Your task to perform on an android device: check battery use Image 0: 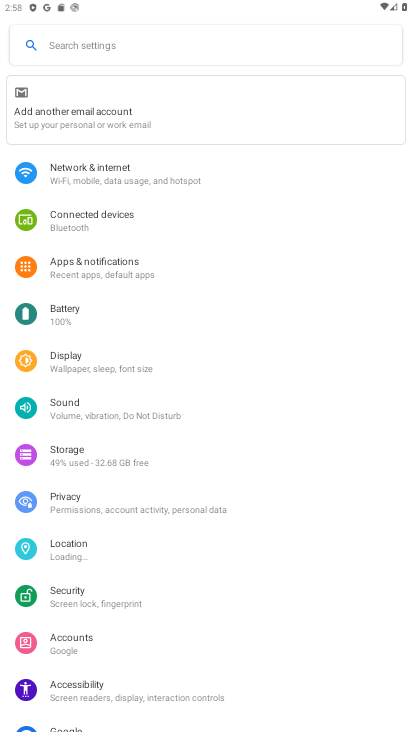
Step 0: press home button
Your task to perform on an android device: check battery use Image 1: 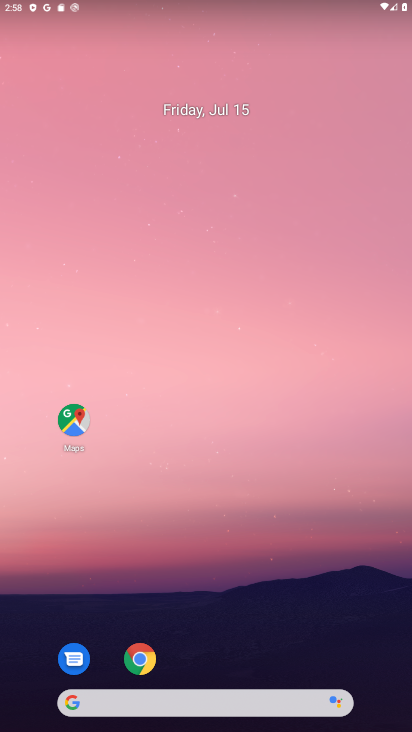
Step 1: drag from (213, 625) to (160, 248)
Your task to perform on an android device: check battery use Image 2: 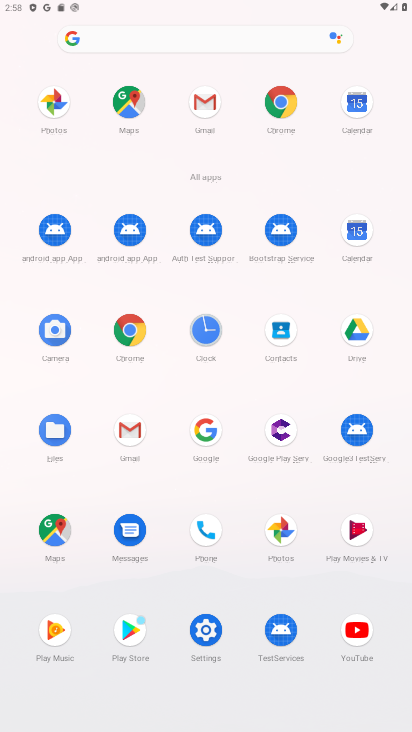
Step 2: click (199, 633)
Your task to perform on an android device: check battery use Image 3: 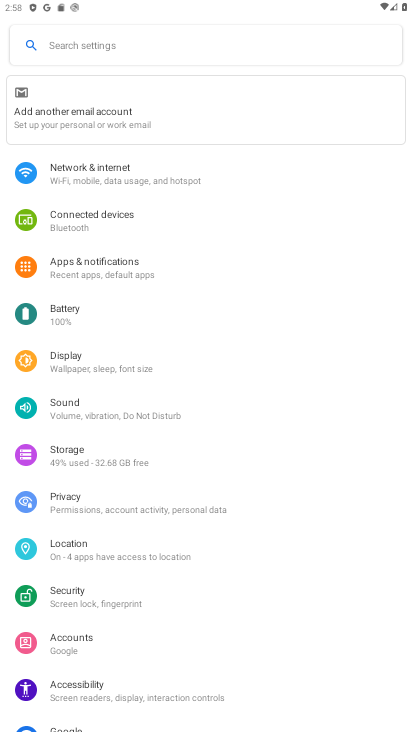
Step 3: click (56, 309)
Your task to perform on an android device: check battery use Image 4: 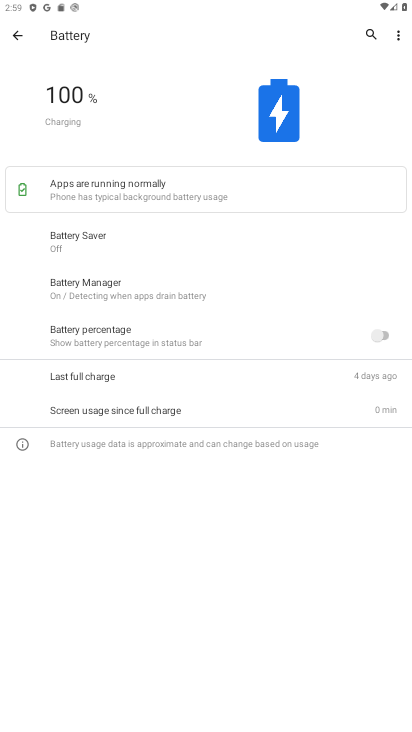
Step 4: task complete